Your task to perform on an android device: set the stopwatch Image 0: 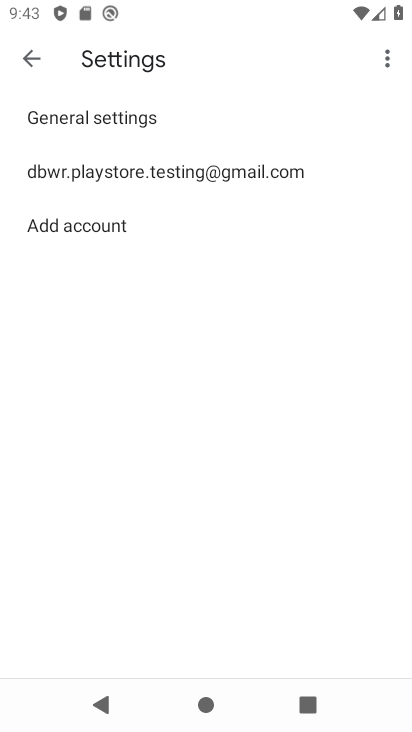
Step 0: press home button
Your task to perform on an android device: set the stopwatch Image 1: 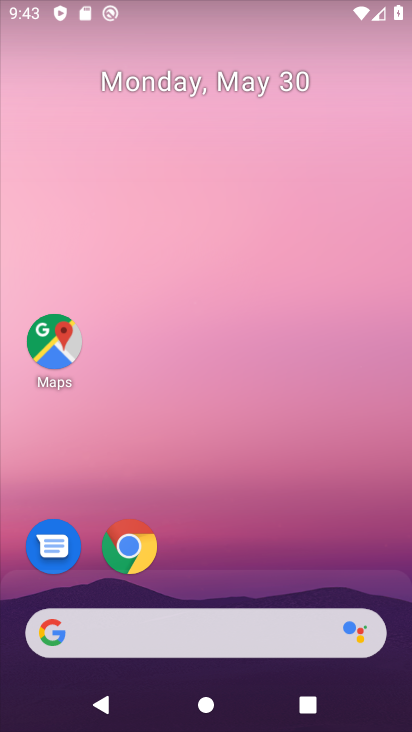
Step 1: drag from (226, 605) to (292, 118)
Your task to perform on an android device: set the stopwatch Image 2: 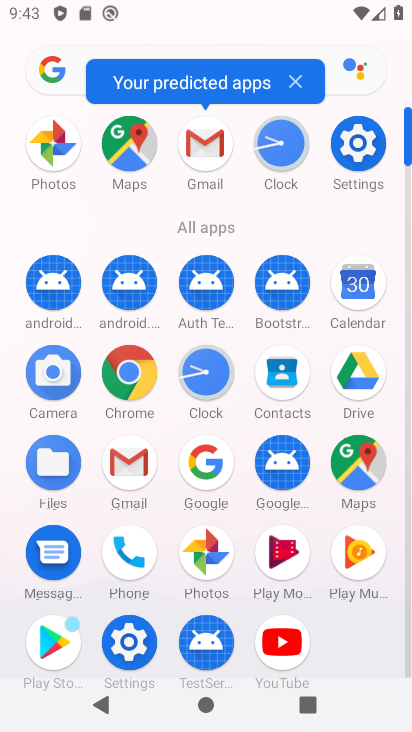
Step 2: click (199, 374)
Your task to perform on an android device: set the stopwatch Image 3: 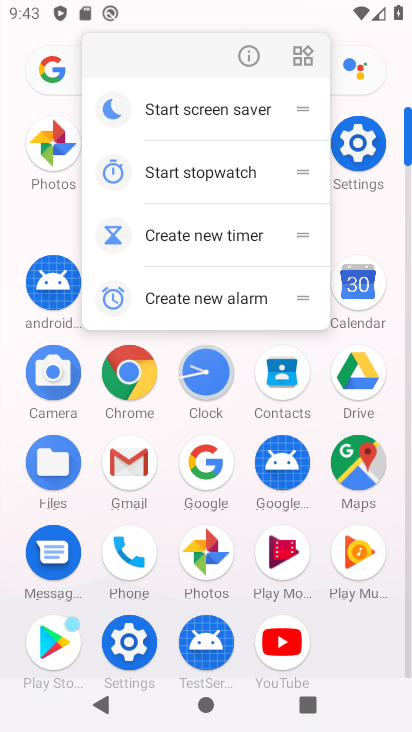
Step 3: click (225, 385)
Your task to perform on an android device: set the stopwatch Image 4: 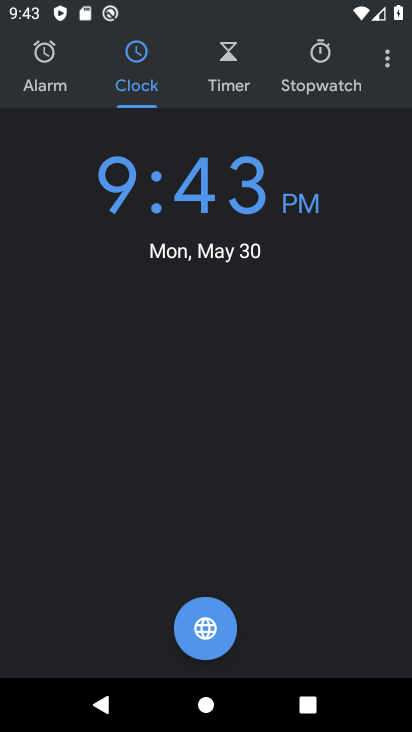
Step 4: click (329, 51)
Your task to perform on an android device: set the stopwatch Image 5: 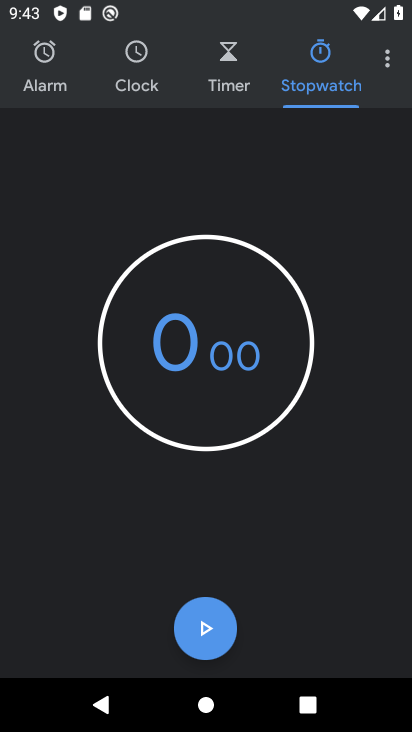
Step 5: click (213, 642)
Your task to perform on an android device: set the stopwatch Image 6: 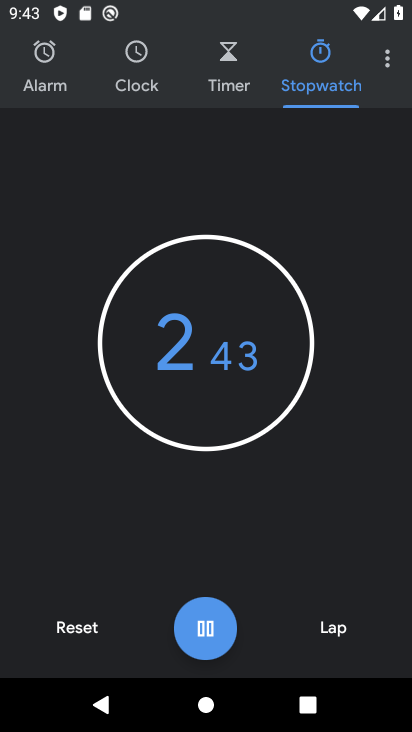
Step 6: task complete